Your task to perform on an android device: turn off notifications in google photos Image 0: 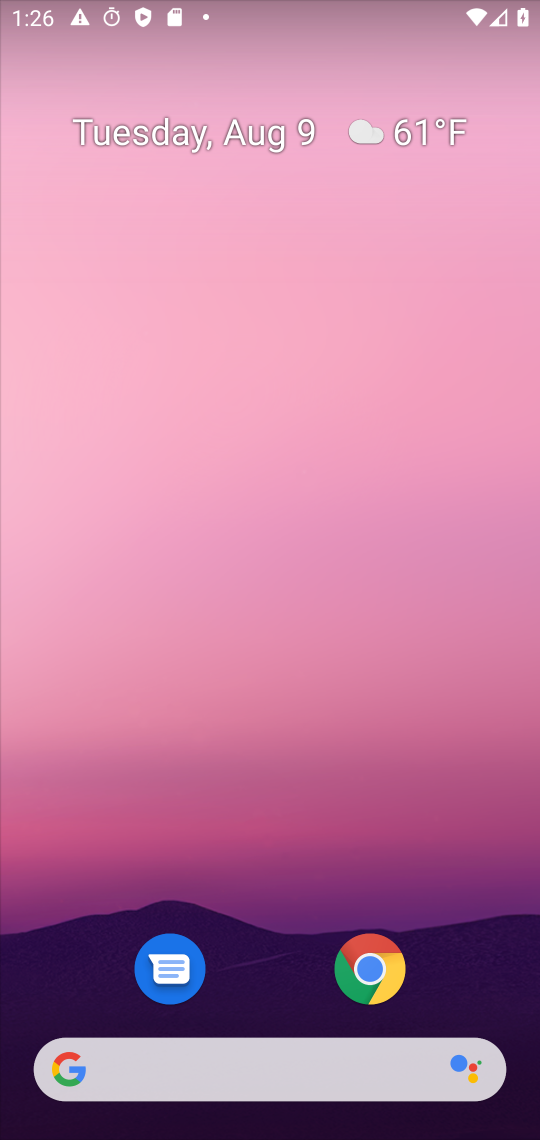
Step 0: drag from (293, 1112) to (264, 442)
Your task to perform on an android device: turn off notifications in google photos Image 1: 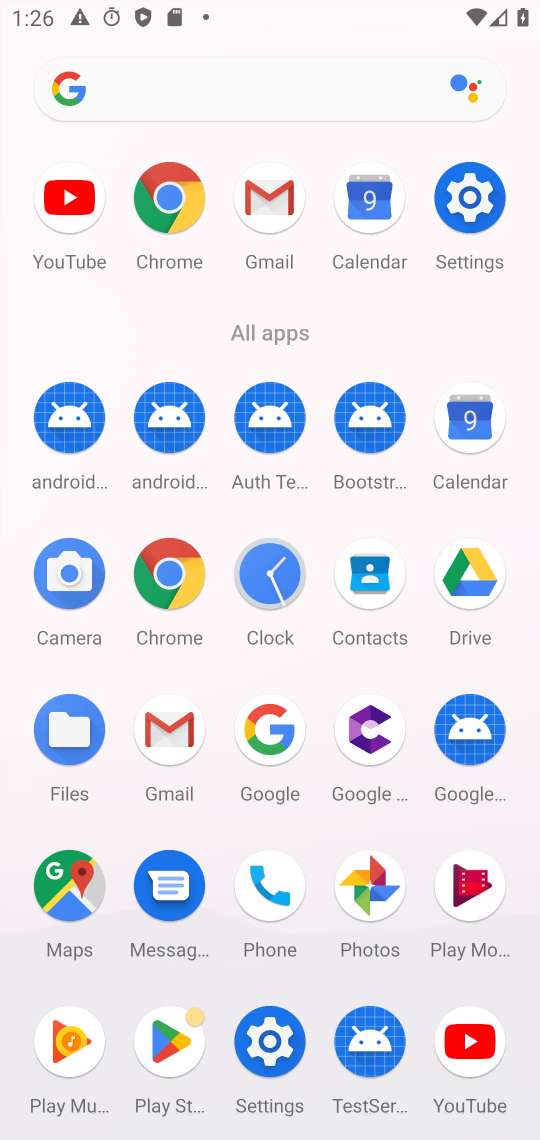
Step 1: click (364, 874)
Your task to perform on an android device: turn off notifications in google photos Image 2: 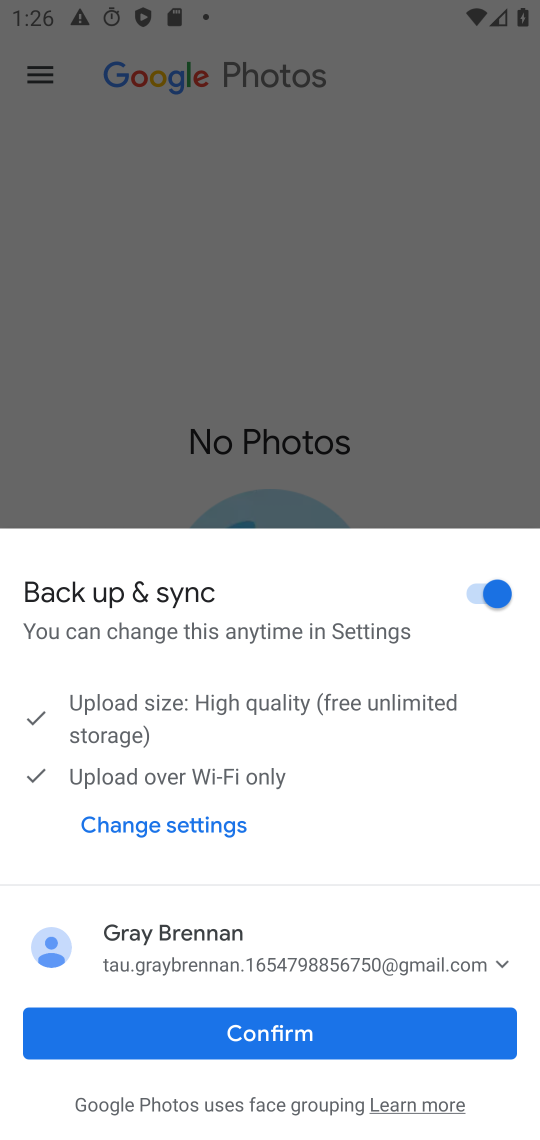
Step 2: click (308, 1029)
Your task to perform on an android device: turn off notifications in google photos Image 3: 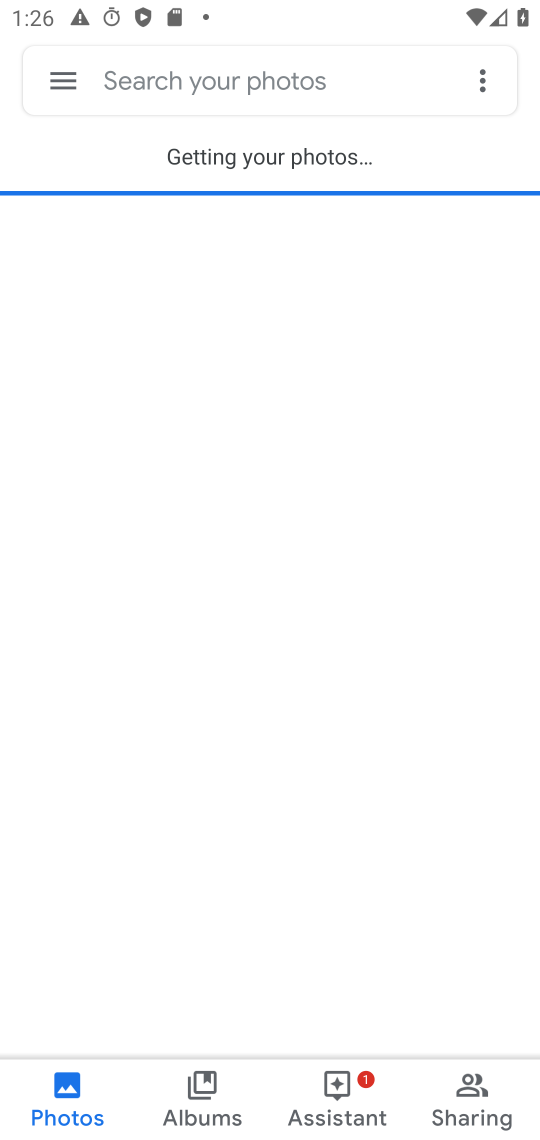
Step 3: click (58, 88)
Your task to perform on an android device: turn off notifications in google photos Image 4: 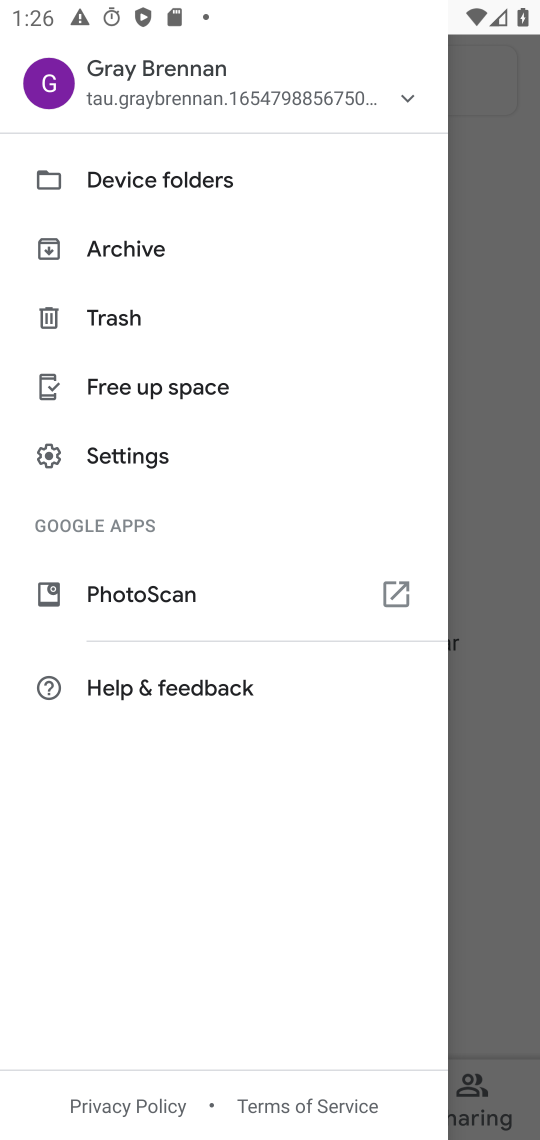
Step 4: click (141, 471)
Your task to perform on an android device: turn off notifications in google photos Image 5: 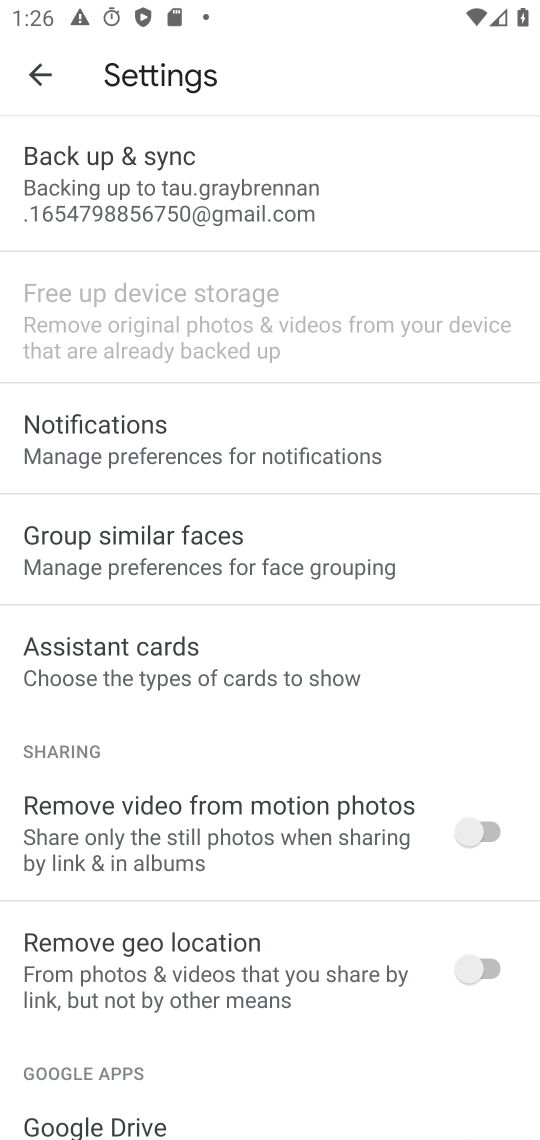
Step 5: click (142, 457)
Your task to perform on an android device: turn off notifications in google photos Image 6: 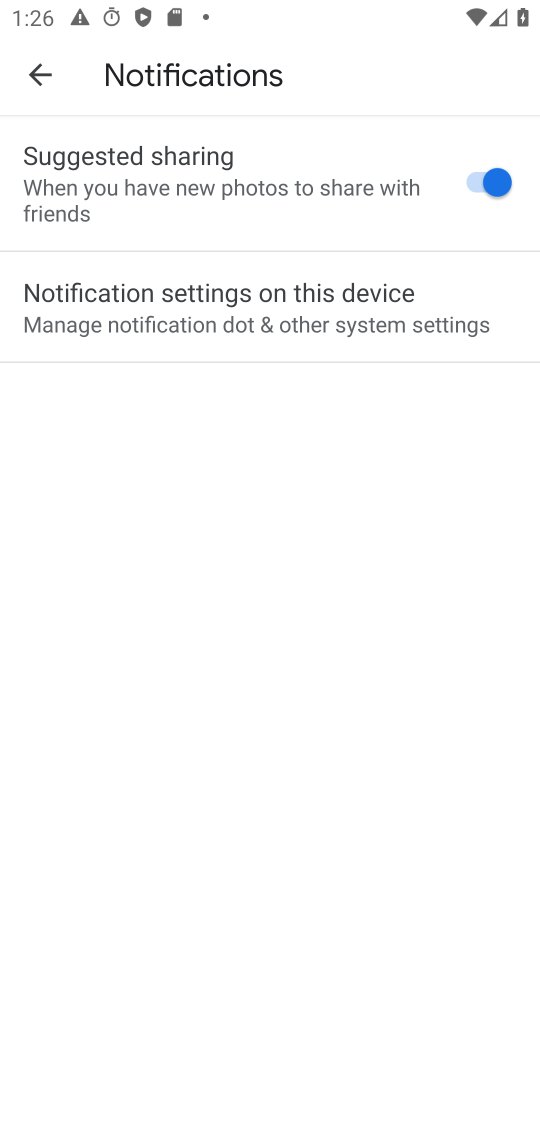
Step 6: click (223, 326)
Your task to perform on an android device: turn off notifications in google photos Image 7: 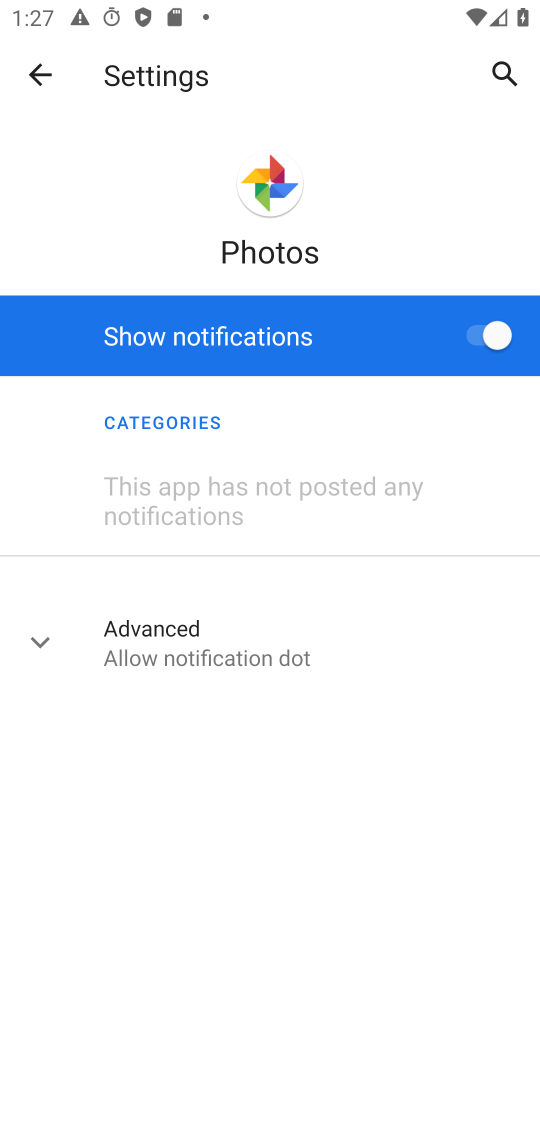
Step 7: click (483, 335)
Your task to perform on an android device: turn off notifications in google photos Image 8: 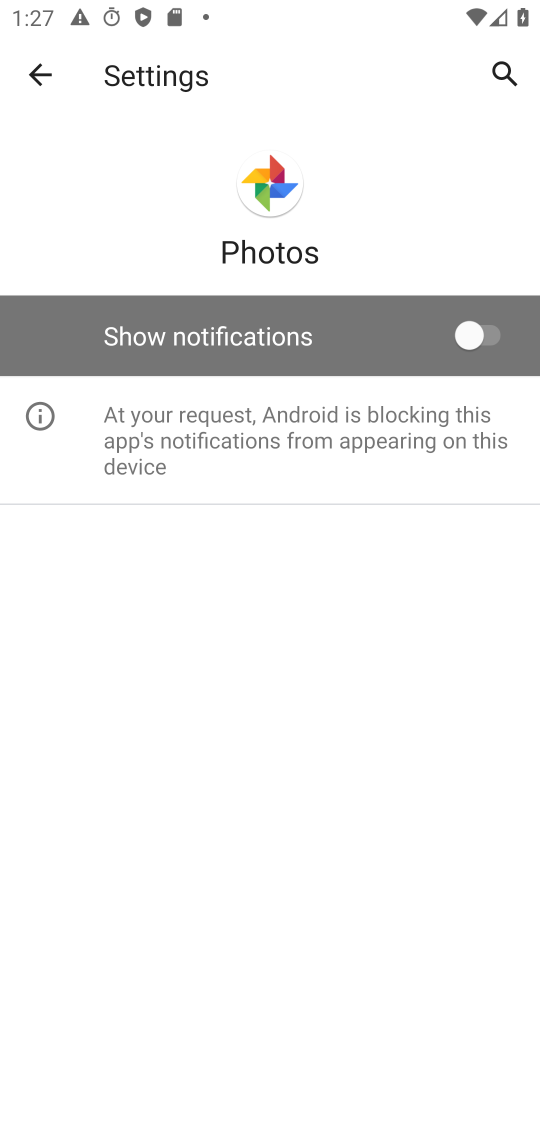
Step 8: task complete